Your task to perform on an android device: What's the weather going to be this weekend? Image 0: 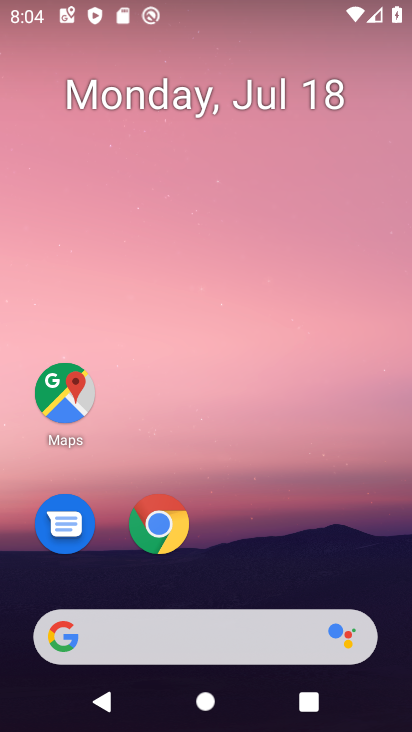
Step 0: drag from (261, 533) to (239, 81)
Your task to perform on an android device: What's the weather going to be this weekend? Image 1: 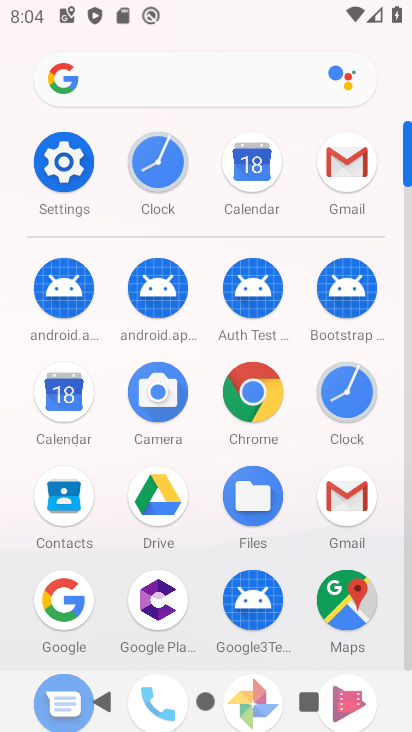
Step 1: click (239, 84)
Your task to perform on an android device: What's the weather going to be this weekend? Image 2: 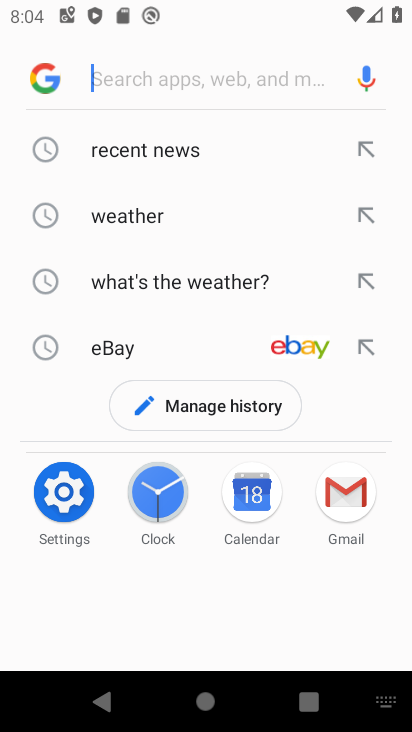
Step 2: click (147, 214)
Your task to perform on an android device: What's the weather going to be this weekend? Image 3: 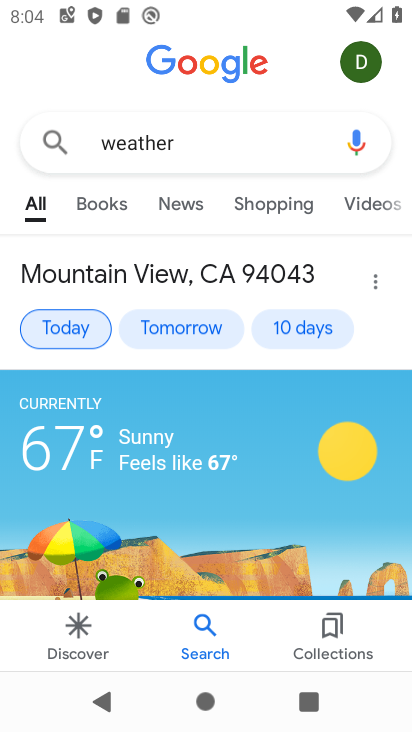
Step 3: click (87, 329)
Your task to perform on an android device: What's the weather going to be this weekend? Image 4: 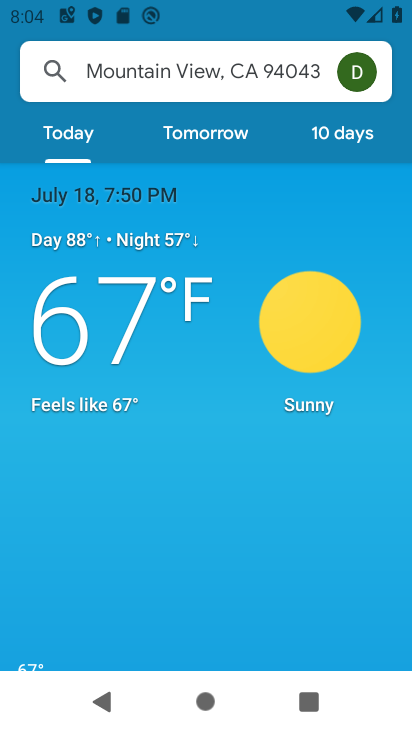
Step 4: click (341, 124)
Your task to perform on an android device: What's the weather going to be this weekend? Image 5: 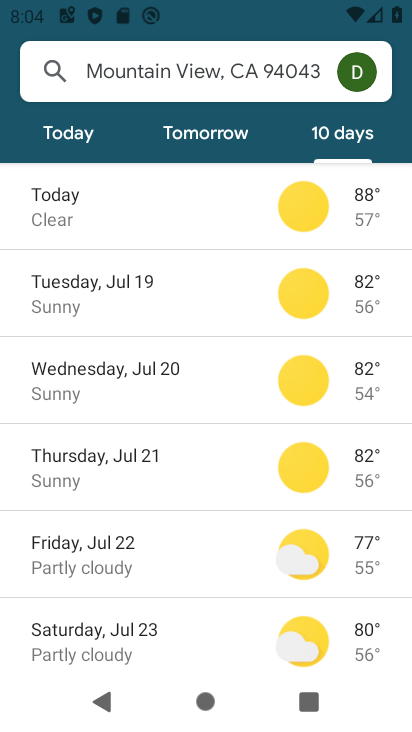
Step 5: click (122, 632)
Your task to perform on an android device: What's the weather going to be this weekend? Image 6: 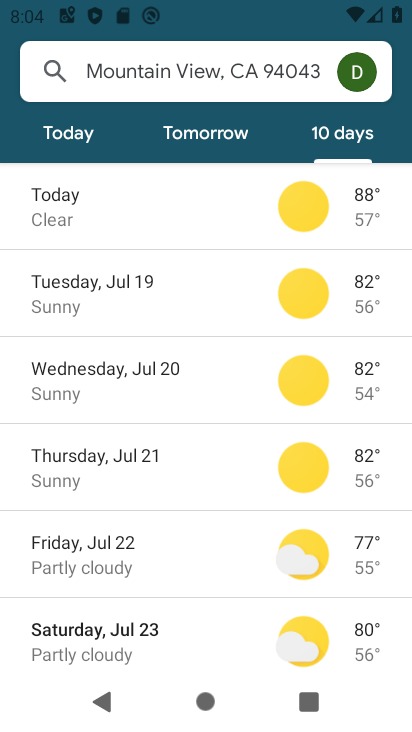
Step 6: task complete